Your task to perform on an android device: Open the calendar app, open the side menu, and click the "Day" option Image 0: 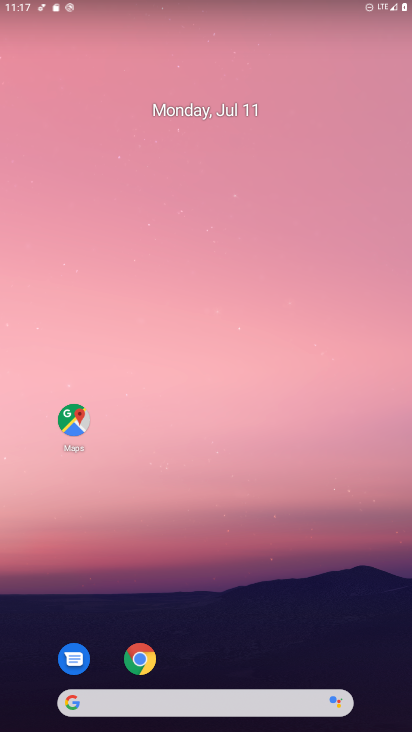
Step 0: drag from (260, 651) to (246, 0)
Your task to perform on an android device: Open the calendar app, open the side menu, and click the "Day" option Image 1: 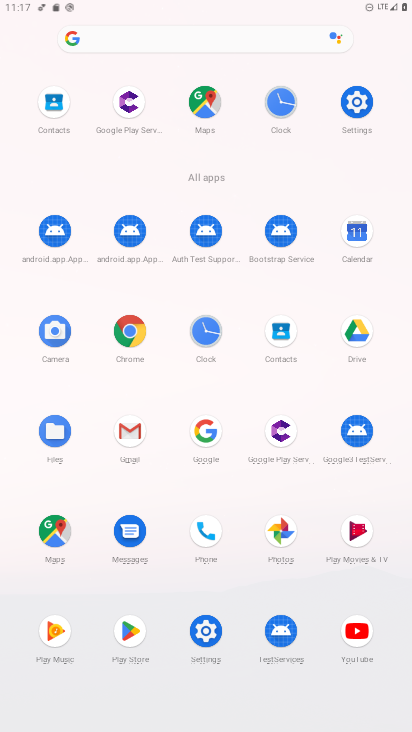
Step 1: click (358, 238)
Your task to perform on an android device: Open the calendar app, open the side menu, and click the "Day" option Image 2: 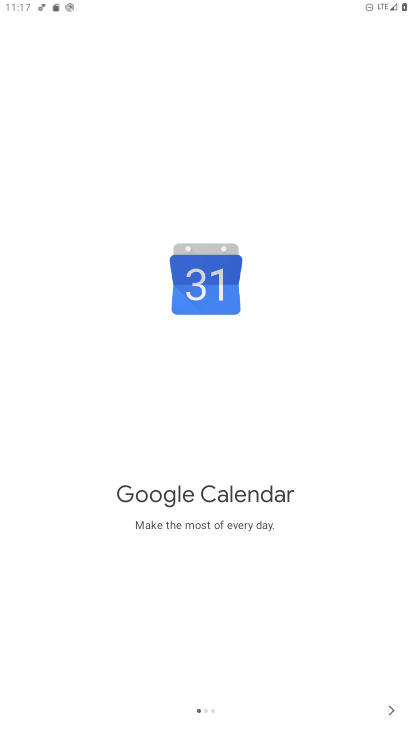
Step 2: click (396, 711)
Your task to perform on an android device: Open the calendar app, open the side menu, and click the "Day" option Image 3: 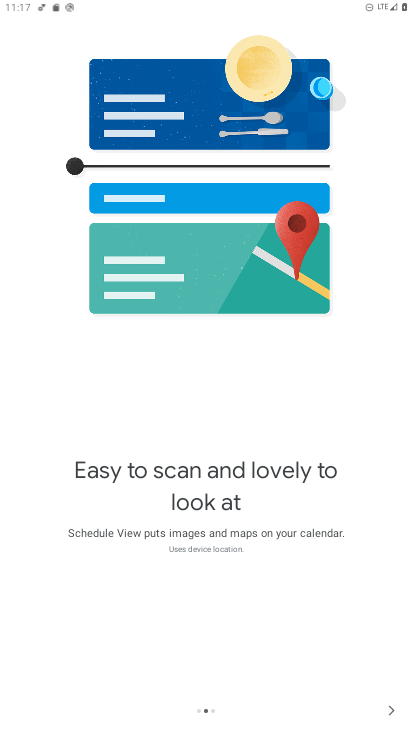
Step 3: click (394, 711)
Your task to perform on an android device: Open the calendar app, open the side menu, and click the "Day" option Image 4: 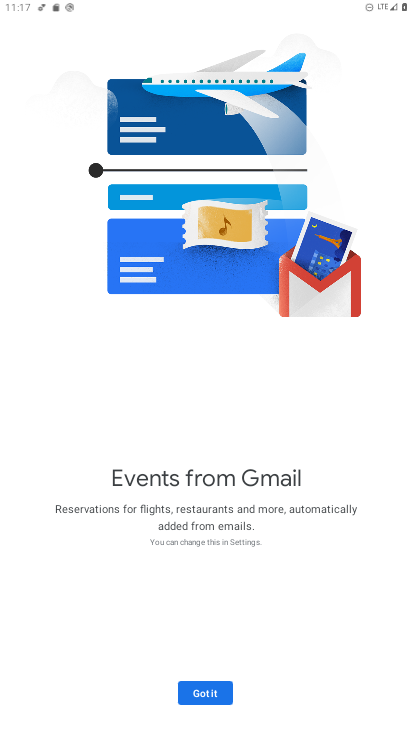
Step 4: click (214, 695)
Your task to perform on an android device: Open the calendar app, open the side menu, and click the "Day" option Image 5: 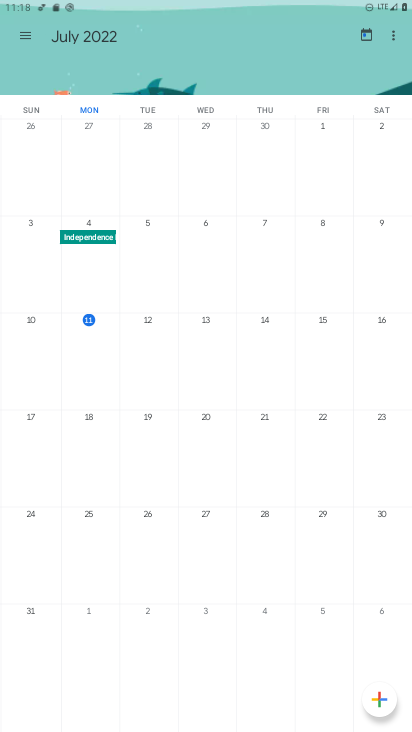
Step 5: click (25, 35)
Your task to perform on an android device: Open the calendar app, open the side menu, and click the "Day" option Image 6: 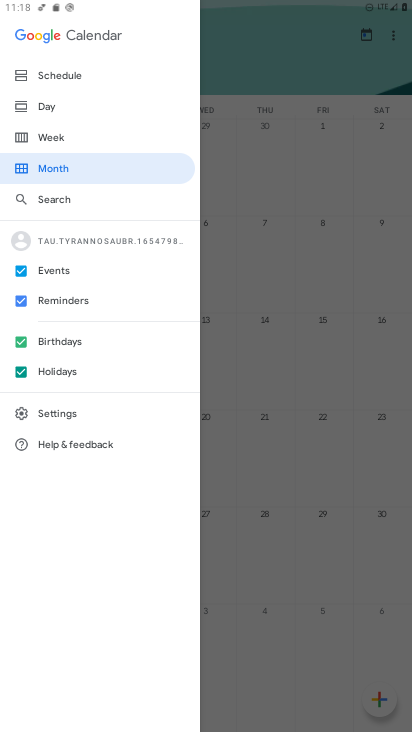
Step 6: click (56, 102)
Your task to perform on an android device: Open the calendar app, open the side menu, and click the "Day" option Image 7: 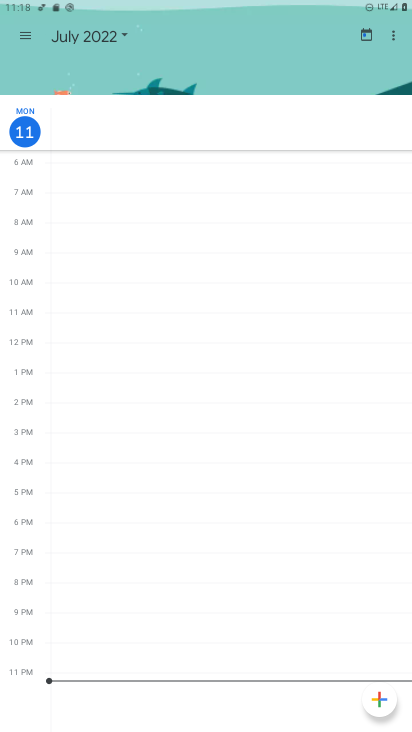
Step 7: task complete